Your task to perform on an android device: turn off data saver in the chrome app Image 0: 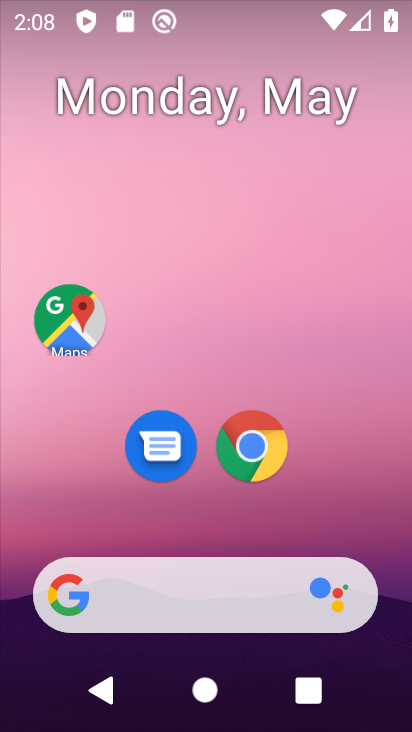
Step 0: drag from (324, 525) to (300, 147)
Your task to perform on an android device: turn off data saver in the chrome app Image 1: 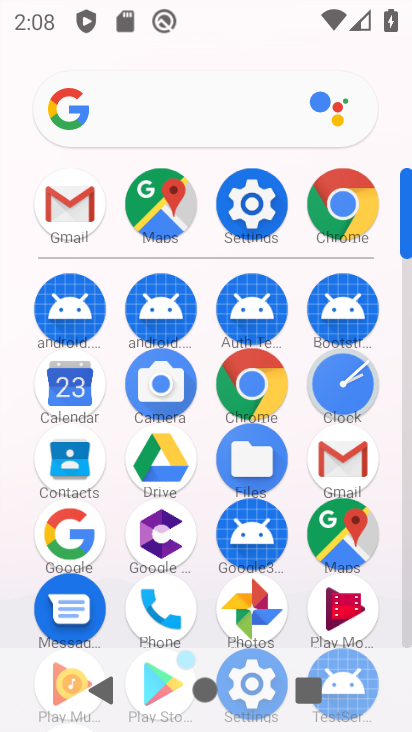
Step 1: click (245, 390)
Your task to perform on an android device: turn off data saver in the chrome app Image 2: 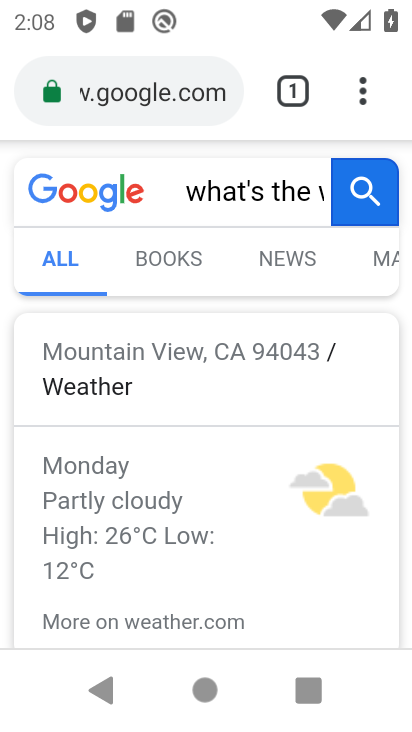
Step 2: drag from (237, 565) to (211, 372)
Your task to perform on an android device: turn off data saver in the chrome app Image 3: 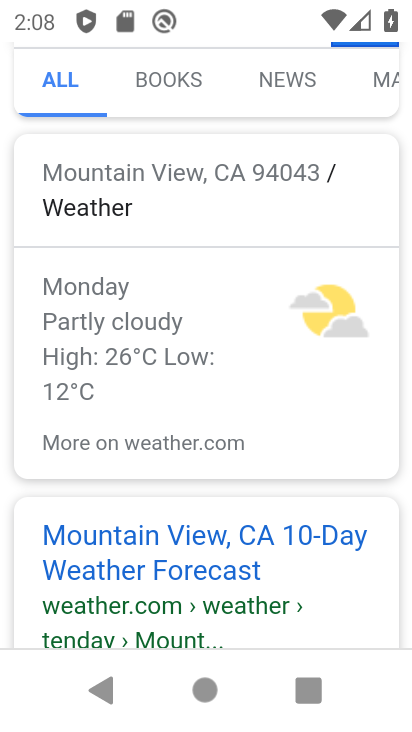
Step 3: drag from (270, 170) to (251, 520)
Your task to perform on an android device: turn off data saver in the chrome app Image 4: 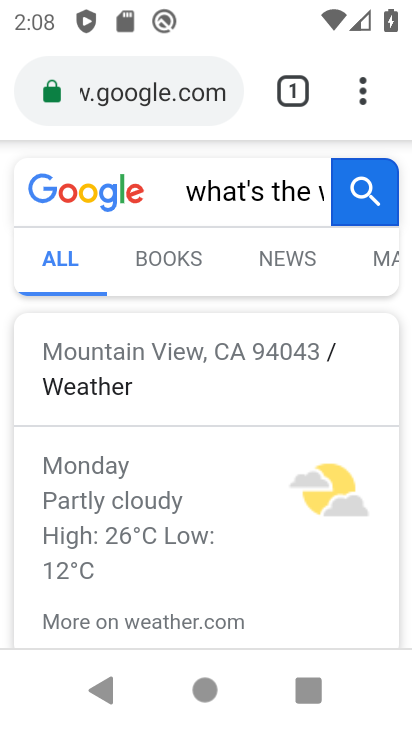
Step 4: drag from (365, 89) to (120, 473)
Your task to perform on an android device: turn off data saver in the chrome app Image 5: 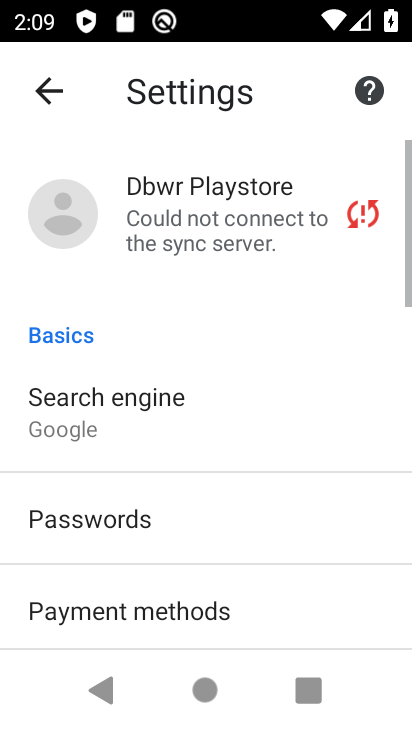
Step 5: drag from (170, 572) to (241, 162)
Your task to perform on an android device: turn off data saver in the chrome app Image 6: 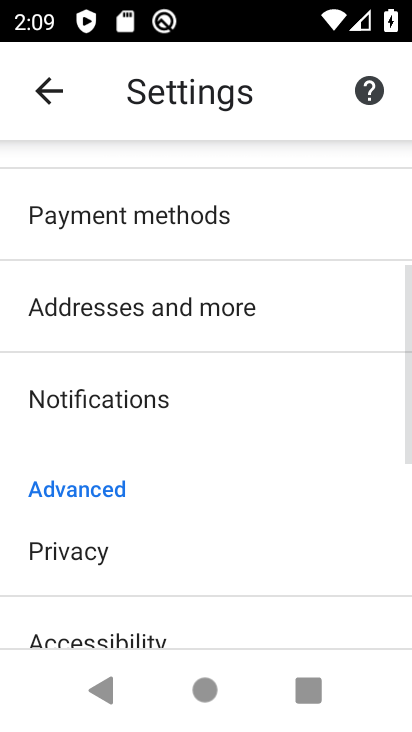
Step 6: drag from (263, 549) to (295, 201)
Your task to perform on an android device: turn off data saver in the chrome app Image 7: 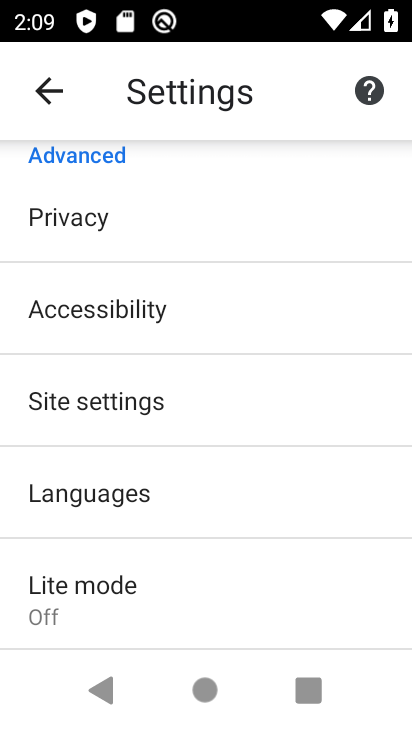
Step 7: drag from (263, 559) to (275, 247)
Your task to perform on an android device: turn off data saver in the chrome app Image 8: 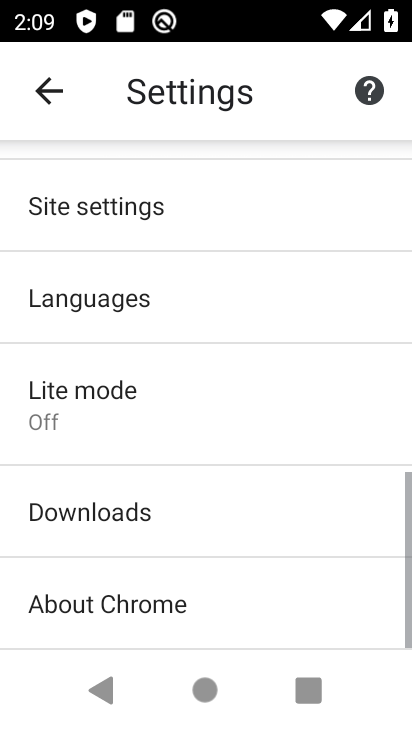
Step 8: click (175, 411)
Your task to perform on an android device: turn off data saver in the chrome app Image 9: 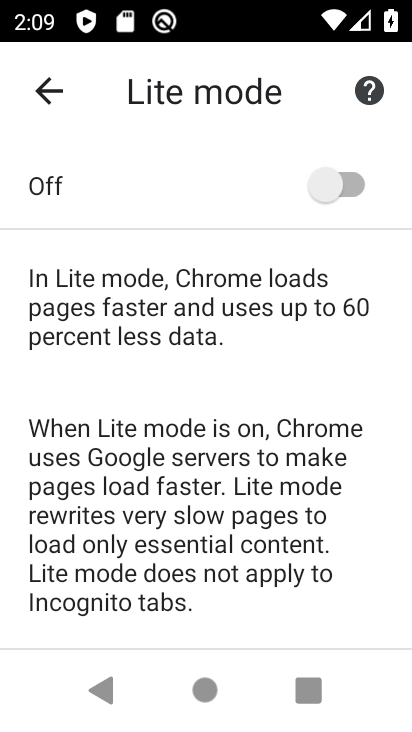
Step 9: task complete